Your task to perform on an android device: empty trash in google photos Image 0: 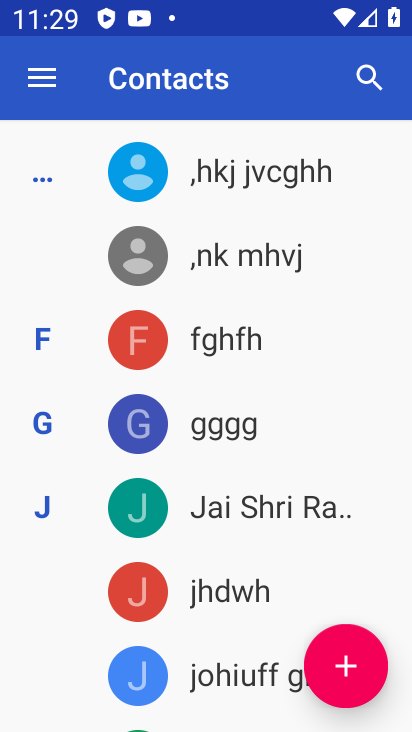
Step 0: press home button
Your task to perform on an android device: empty trash in google photos Image 1: 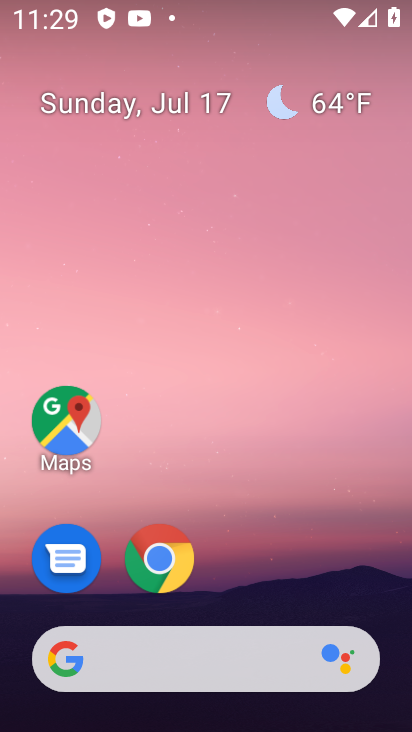
Step 1: drag from (321, 576) to (320, 102)
Your task to perform on an android device: empty trash in google photos Image 2: 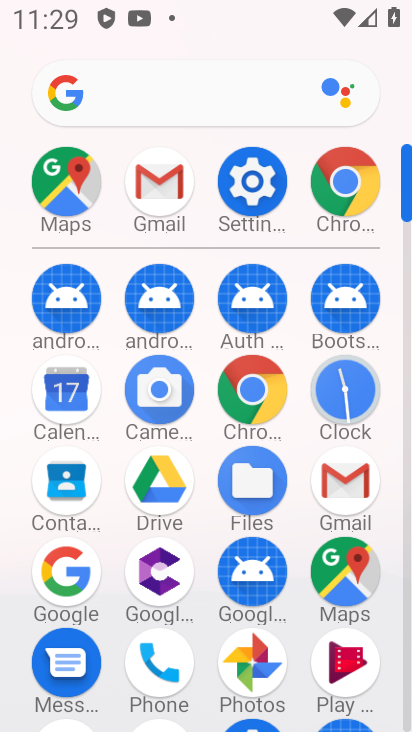
Step 2: drag from (394, 487) to (394, 323)
Your task to perform on an android device: empty trash in google photos Image 3: 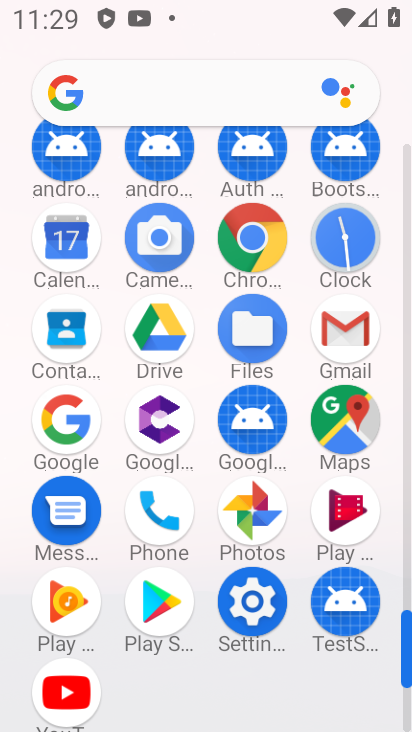
Step 3: click (250, 503)
Your task to perform on an android device: empty trash in google photos Image 4: 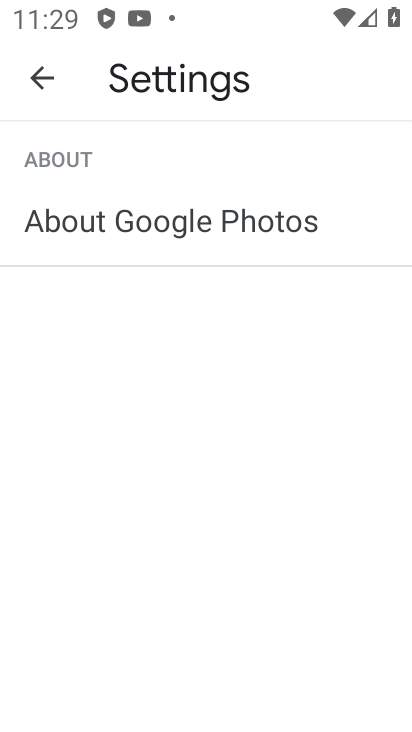
Step 4: press back button
Your task to perform on an android device: empty trash in google photos Image 5: 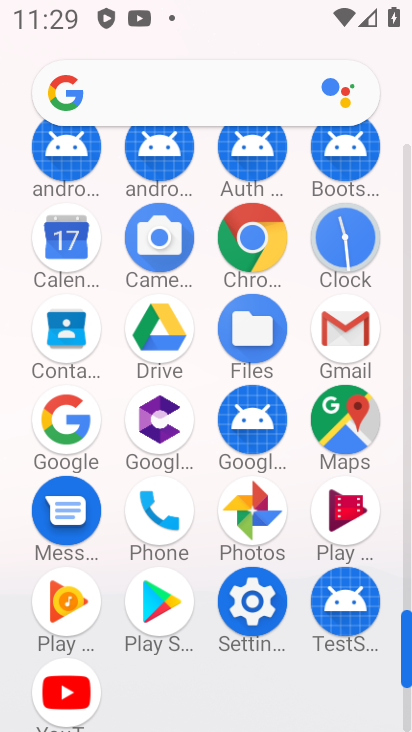
Step 5: click (266, 510)
Your task to perform on an android device: empty trash in google photos Image 6: 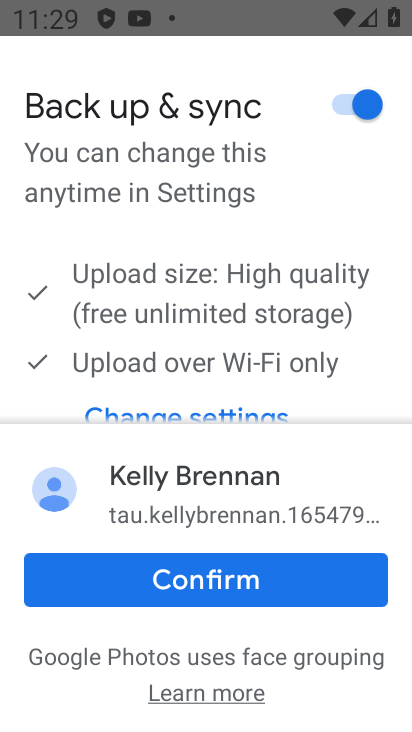
Step 6: click (201, 585)
Your task to perform on an android device: empty trash in google photos Image 7: 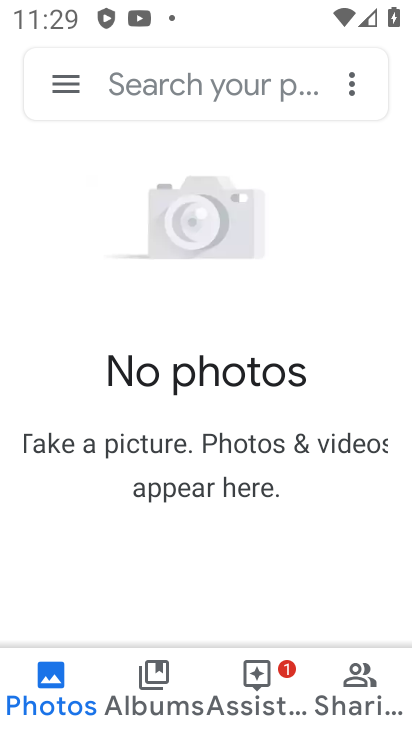
Step 7: click (65, 84)
Your task to perform on an android device: empty trash in google photos Image 8: 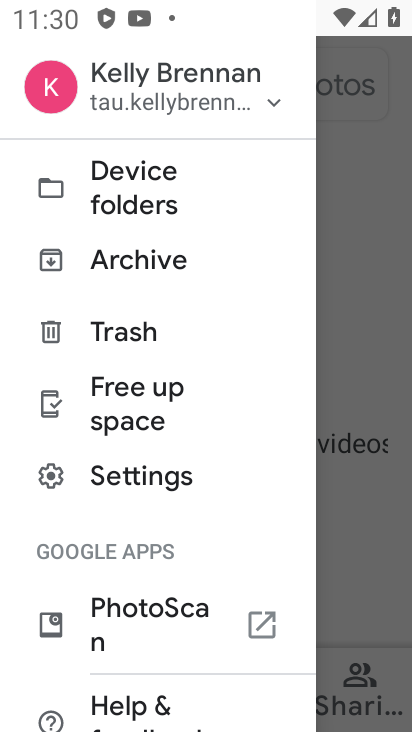
Step 8: click (151, 332)
Your task to perform on an android device: empty trash in google photos Image 9: 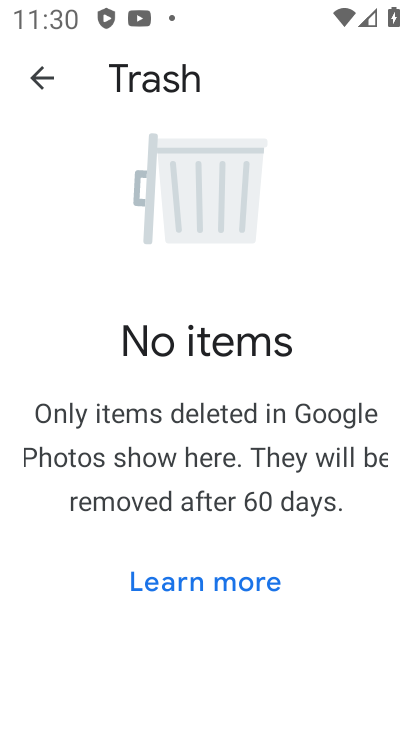
Step 9: task complete